Your task to perform on an android device: turn off picture-in-picture Image 0: 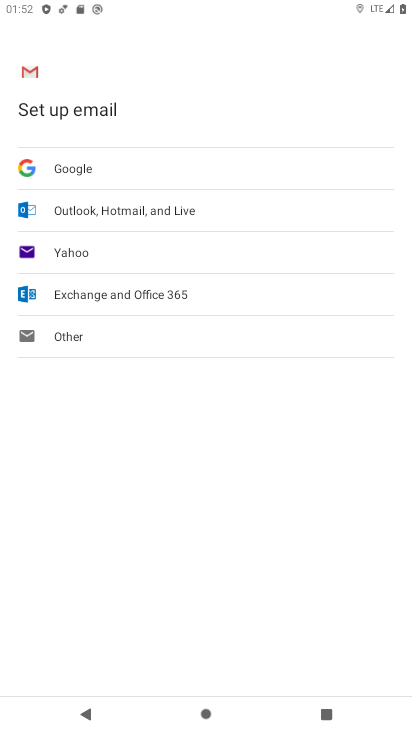
Step 0: press home button
Your task to perform on an android device: turn off picture-in-picture Image 1: 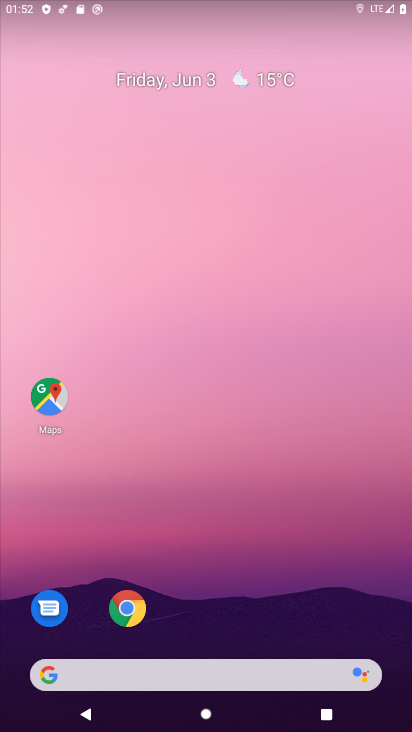
Step 1: click (122, 601)
Your task to perform on an android device: turn off picture-in-picture Image 2: 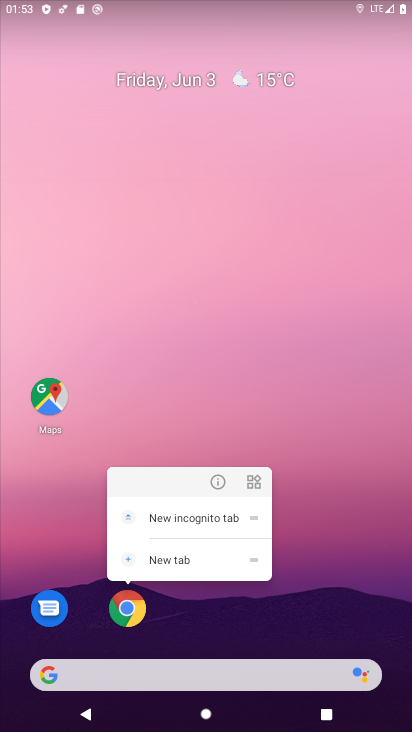
Step 2: click (224, 482)
Your task to perform on an android device: turn off picture-in-picture Image 3: 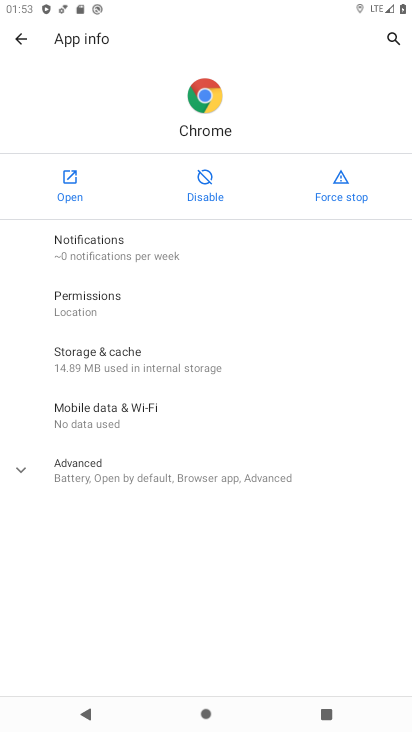
Step 3: click (138, 450)
Your task to perform on an android device: turn off picture-in-picture Image 4: 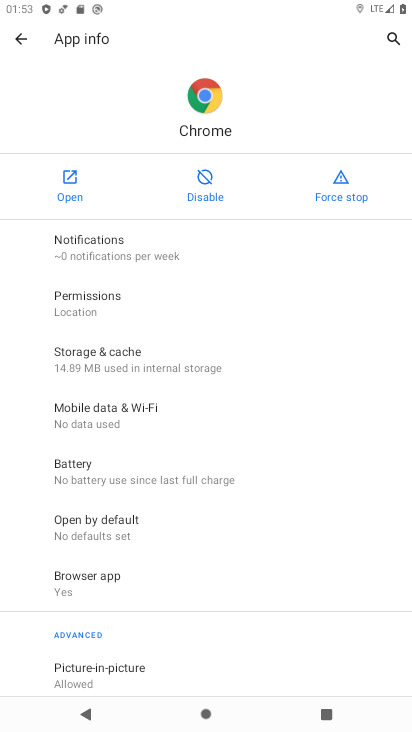
Step 4: click (118, 665)
Your task to perform on an android device: turn off picture-in-picture Image 5: 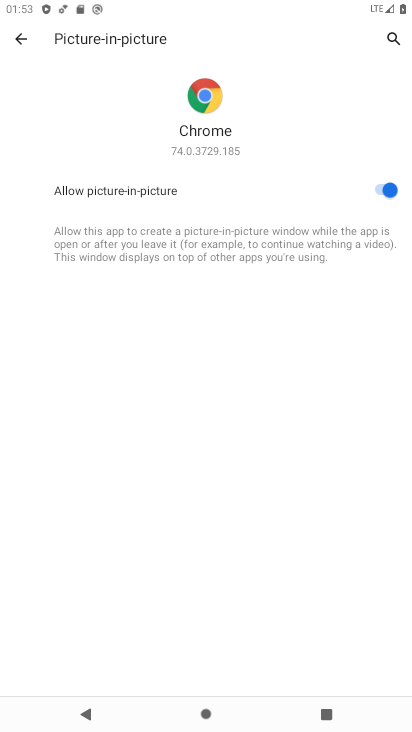
Step 5: click (381, 192)
Your task to perform on an android device: turn off picture-in-picture Image 6: 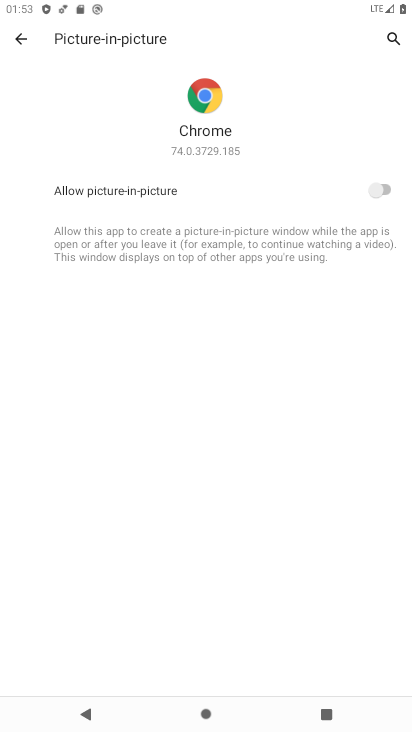
Step 6: task complete